Your task to perform on an android device: Find coffee shops on Maps Image 0: 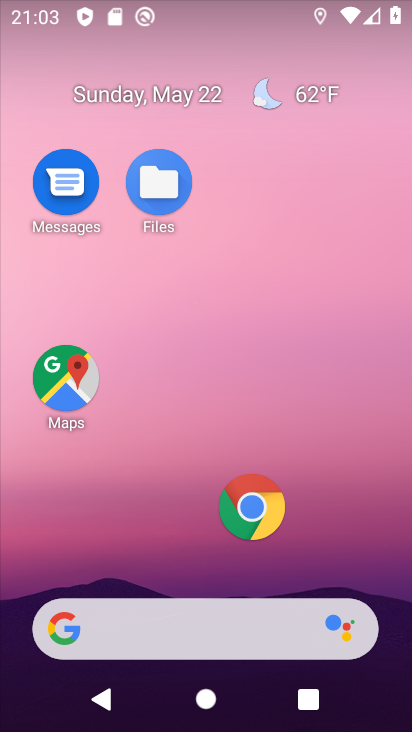
Step 0: click (42, 381)
Your task to perform on an android device: Find coffee shops on Maps Image 1: 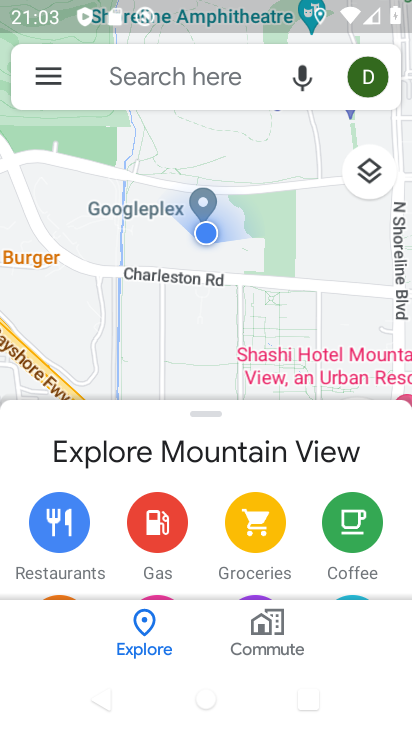
Step 1: click (197, 103)
Your task to perform on an android device: Find coffee shops on Maps Image 2: 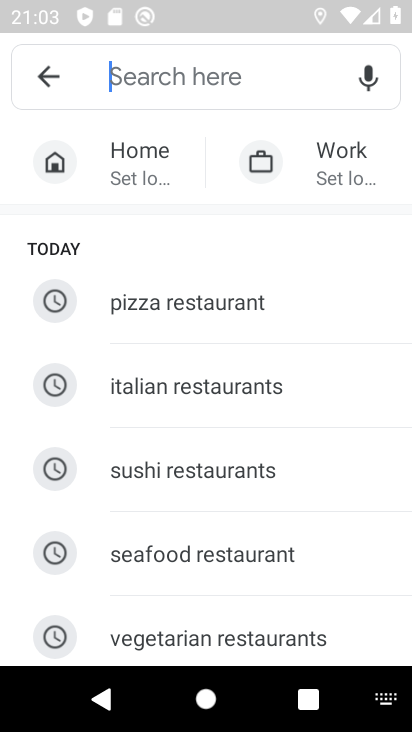
Step 2: drag from (326, 528) to (250, 257)
Your task to perform on an android device: Find coffee shops on Maps Image 3: 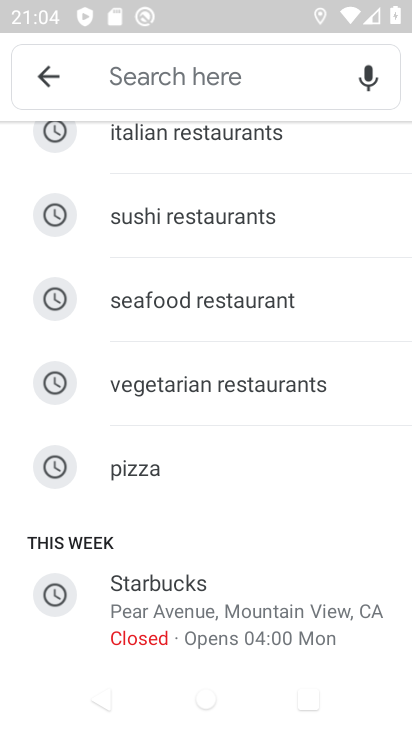
Step 3: click (154, 70)
Your task to perform on an android device: Find coffee shops on Maps Image 4: 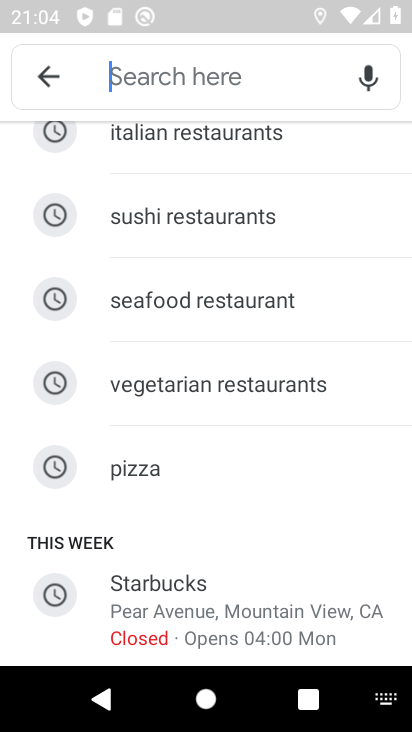
Step 4: type "coffee shop"
Your task to perform on an android device: Find coffee shops on Maps Image 5: 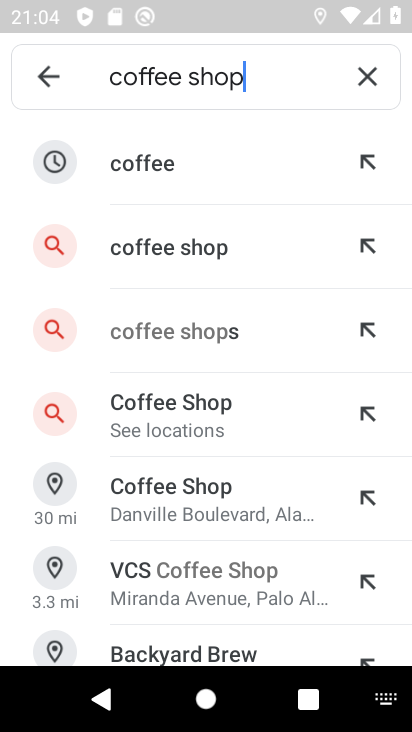
Step 5: click (160, 239)
Your task to perform on an android device: Find coffee shops on Maps Image 6: 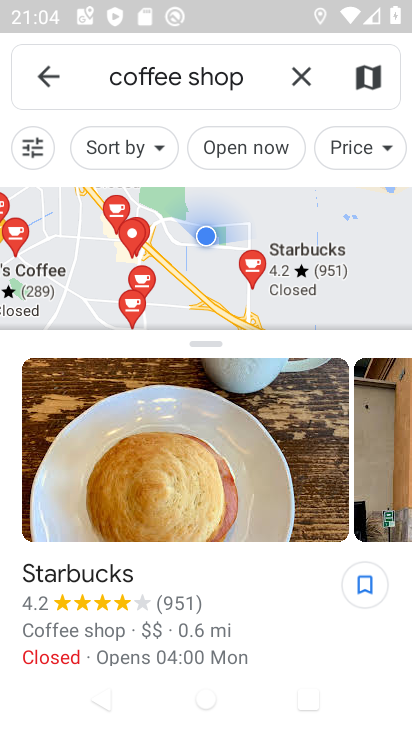
Step 6: task complete